Your task to perform on an android device: change the upload size in google photos Image 0: 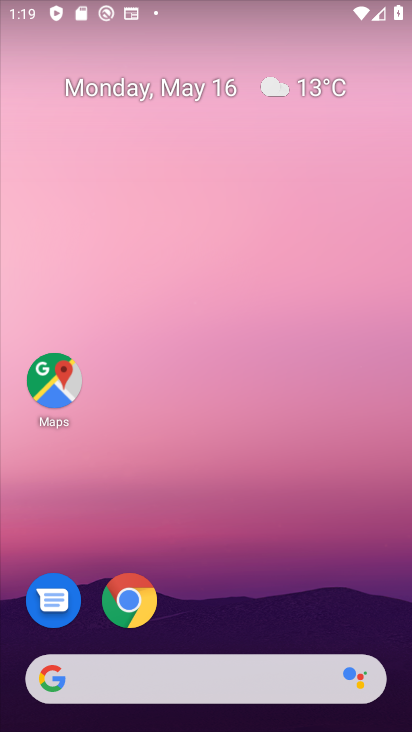
Step 0: drag from (220, 615) to (87, 108)
Your task to perform on an android device: change the upload size in google photos Image 1: 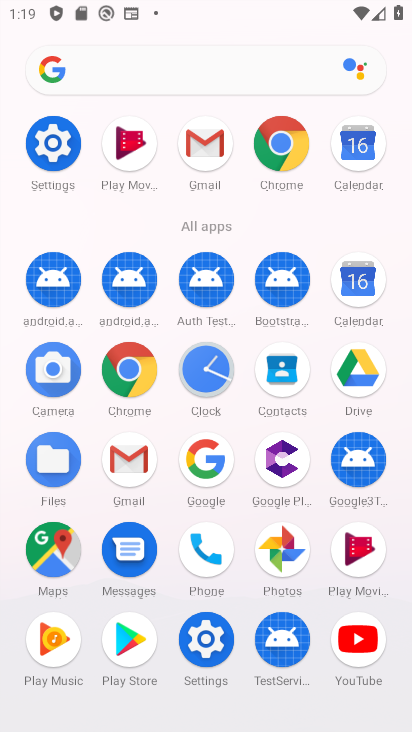
Step 1: click (289, 546)
Your task to perform on an android device: change the upload size in google photos Image 2: 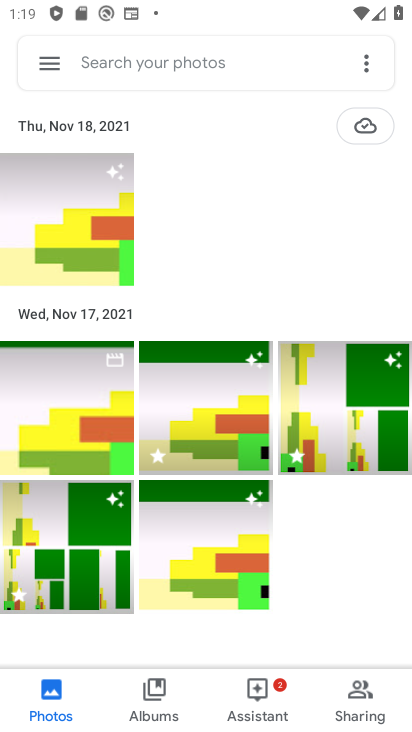
Step 2: click (52, 64)
Your task to perform on an android device: change the upload size in google photos Image 3: 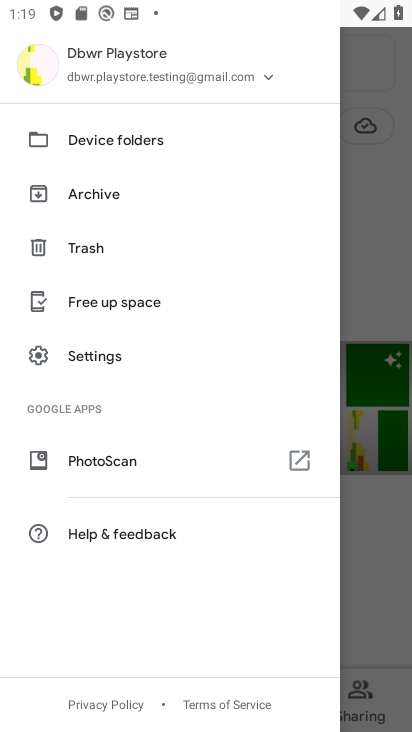
Step 3: click (88, 352)
Your task to perform on an android device: change the upload size in google photos Image 4: 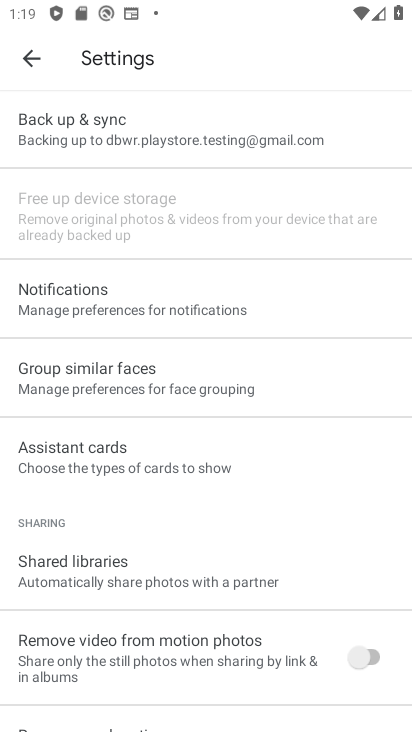
Step 4: click (116, 562)
Your task to perform on an android device: change the upload size in google photos Image 5: 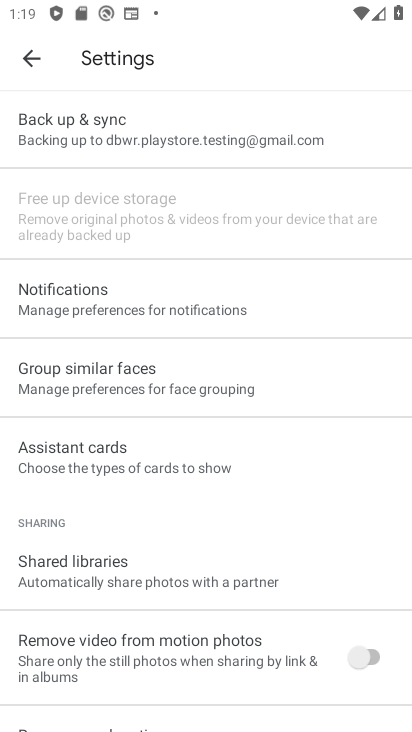
Step 5: click (115, 133)
Your task to perform on an android device: change the upload size in google photos Image 6: 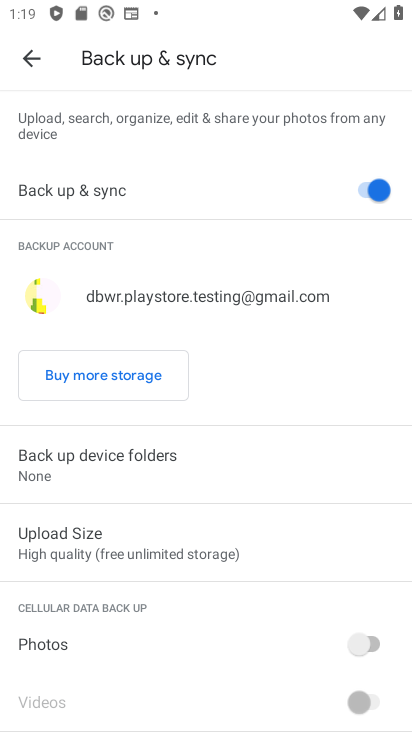
Step 6: click (65, 550)
Your task to perform on an android device: change the upload size in google photos Image 7: 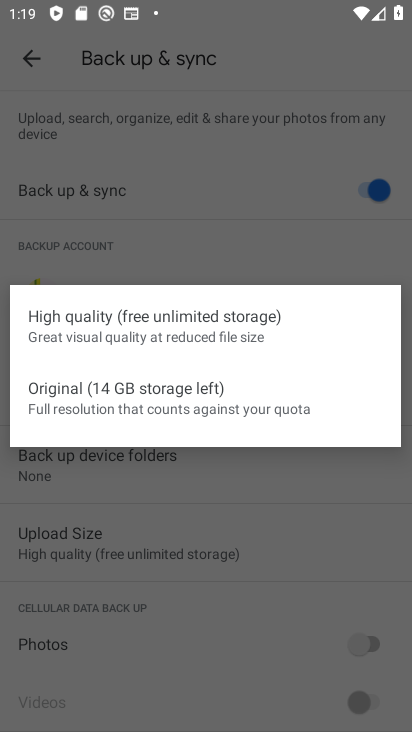
Step 7: click (81, 405)
Your task to perform on an android device: change the upload size in google photos Image 8: 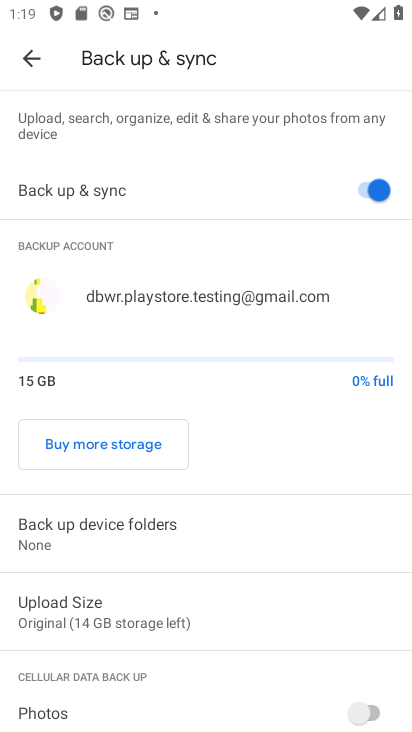
Step 8: task complete